Your task to perform on an android device: Open Android settings Image 0: 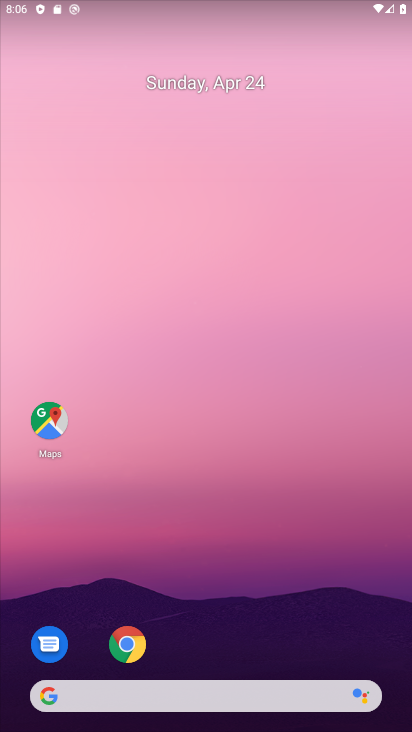
Step 0: drag from (193, 436) to (222, 103)
Your task to perform on an android device: Open Android settings Image 1: 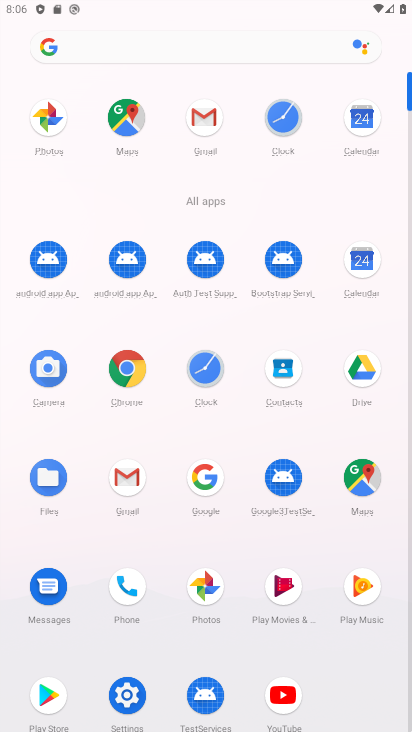
Step 1: click (112, 699)
Your task to perform on an android device: Open Android settings Image 2: 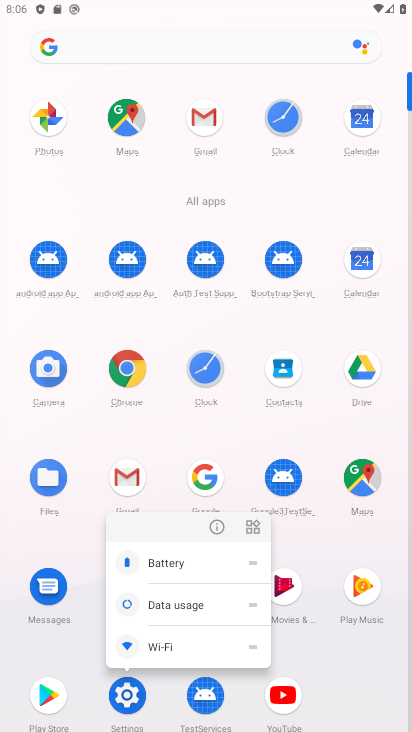
Step 2: click (214, 528)
Your task to perform on an android device: Open Android settings Image 3: 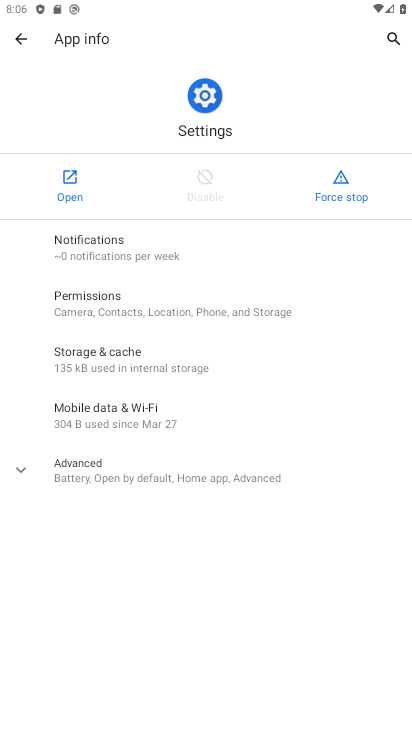
Step 3: click (79, 175)
Your task to perform on an android device: Open Android settings Image 4: 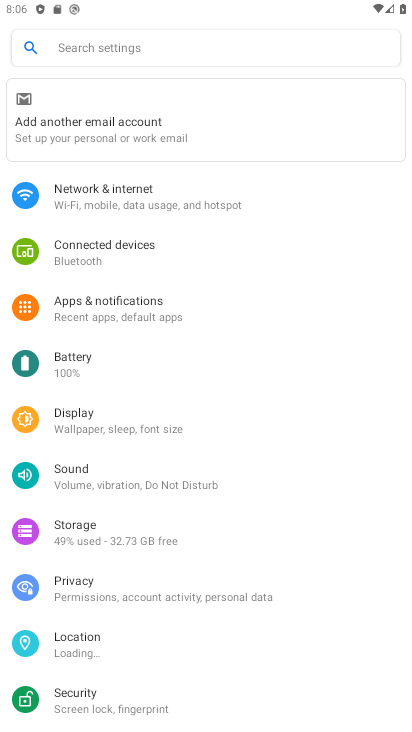
Step 4: drag from (192, 572) to (243, 106)
Your task to perform on an android device: Open Android settings Image 5: 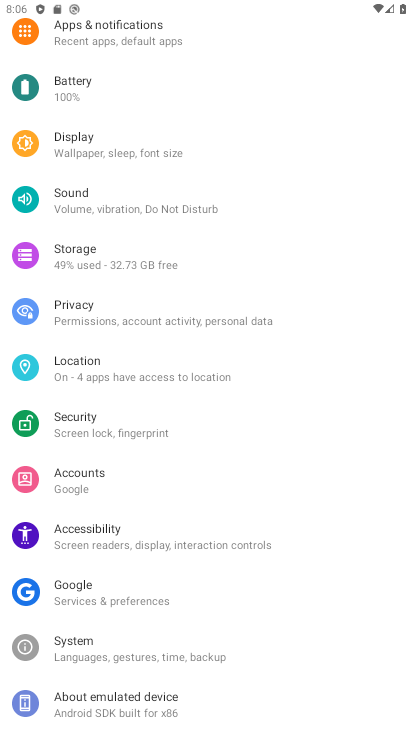
Step 5: click (162, 694)
Your task to perform on an android device: Open Android settings Image 6: 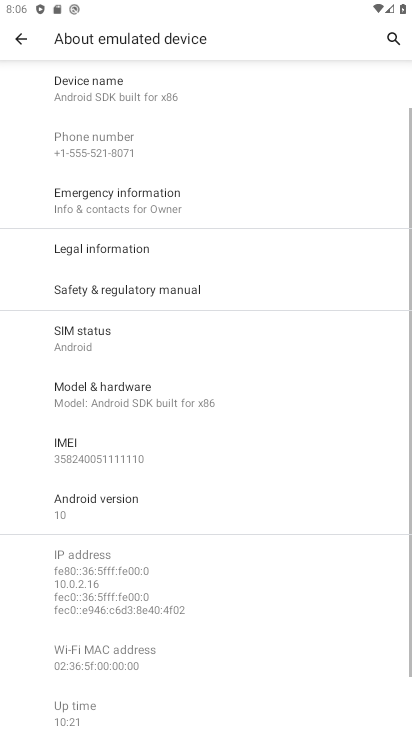
Step 6: click (143, 511)
Your task to perform on an android device: Open Android settings Image 7: 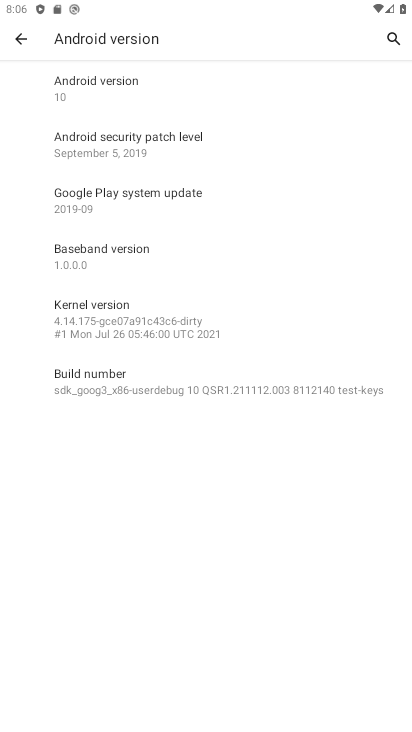
Step 7: task complete